Your task to perform on an android device: toggle translation in the chrome app Image 0: 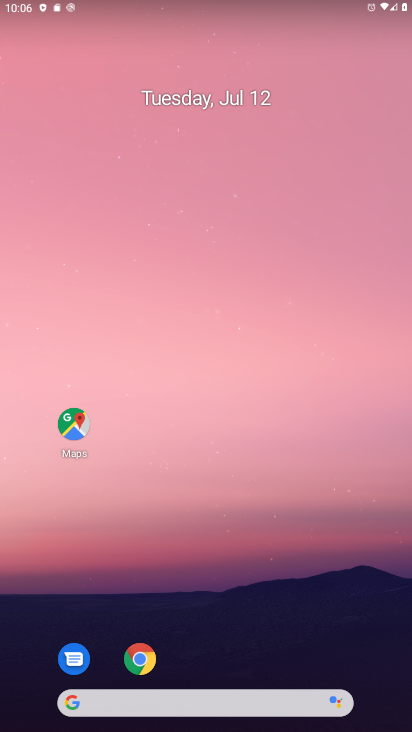
Step 0: click (136, 669)
Your task to perform on an android device: toggle translation in the chrome app Image 1: 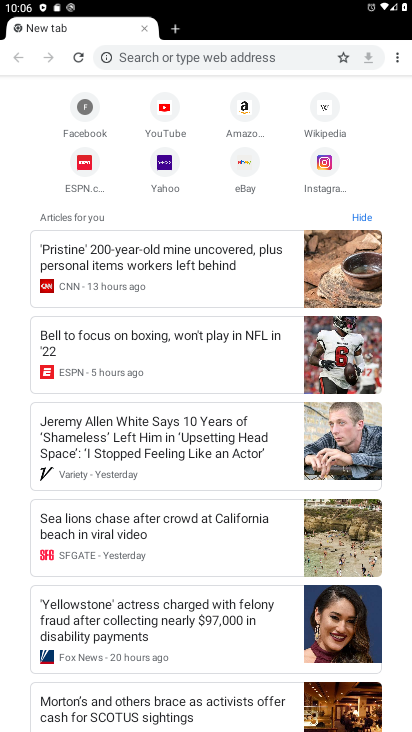
Step 1: drag from (400, 59) to (297, 262)
Your task to perform on an android device: toggle translation in the chrome app Image 2: 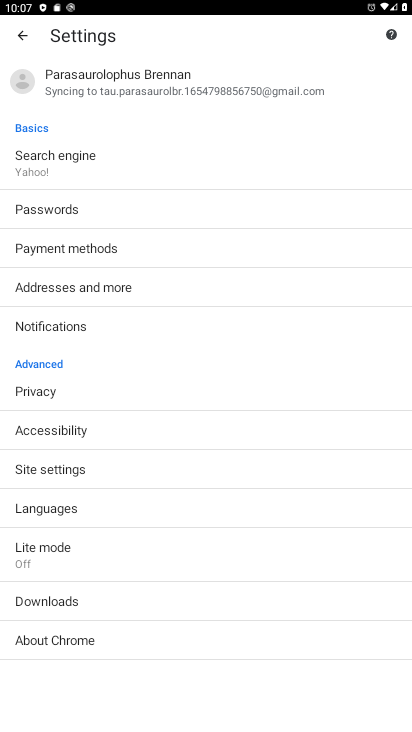
Step 2: click (73, 502)
Your task to perform on an android device: toggle translation in the chrome app Image 3: 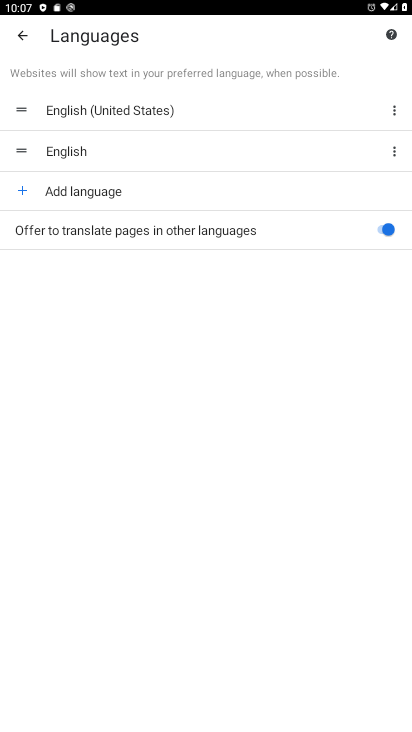
Step 3: click (386, 232)
Your task to perform on an android device: toggle translation in the chrome app Image 4: 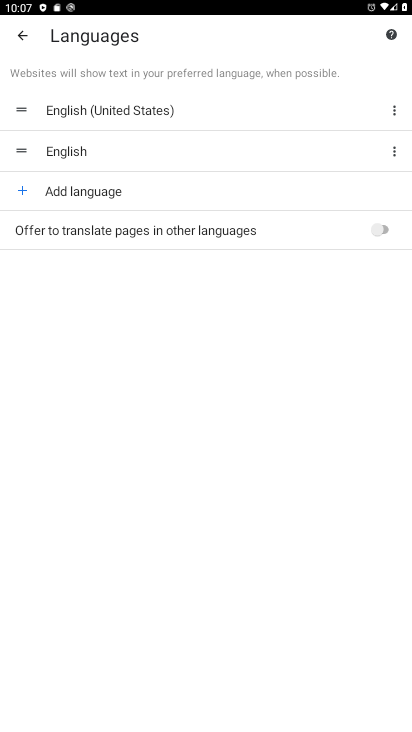
Step 4: task complete